Your task to perform on an android device: add a label to a message in the gmail app Image 0: 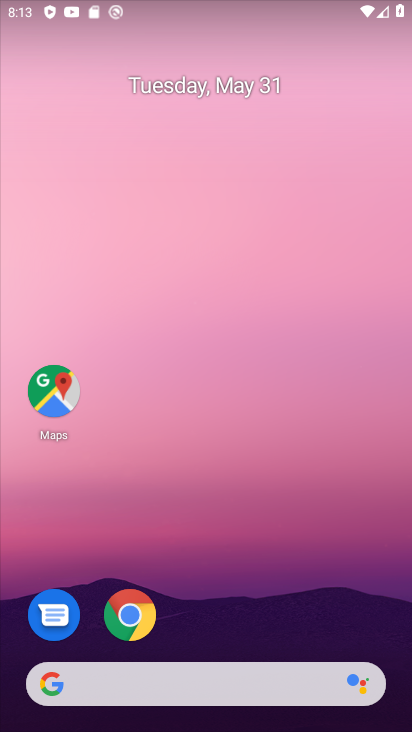
Step 0: drag from (381, 642) to (357, 123)
Your task to perform on an android device: add a label to a message in the gmail app Image 1: 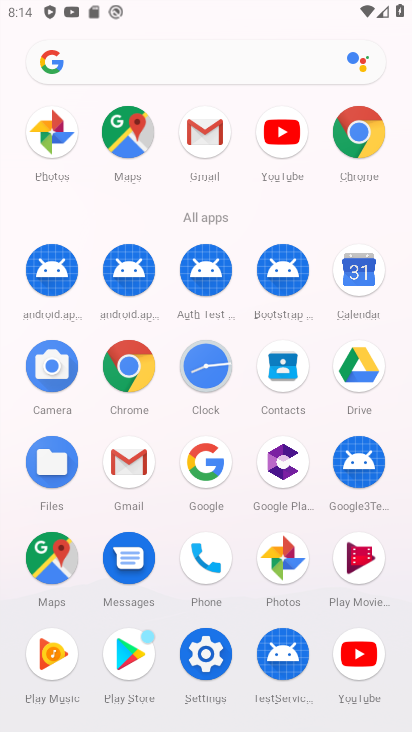
Step 1: click (122, 462)
Your task to perform on an android device: add a label to a message in the gmail app Image 2: 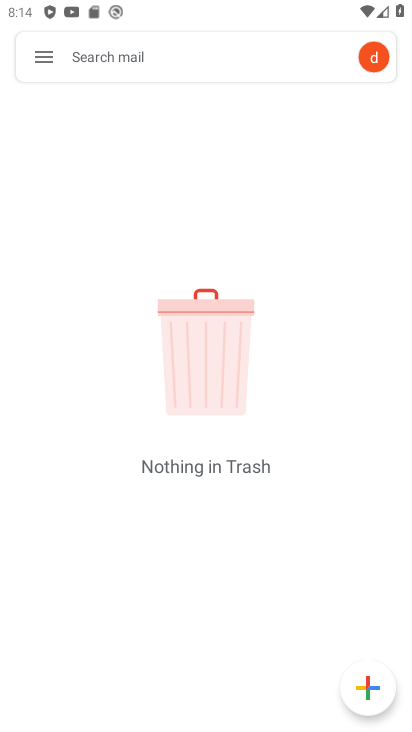
Step 2: click (48, 68)
Your task to perform on an android device: add a label to a message in the gmail app Image 3: 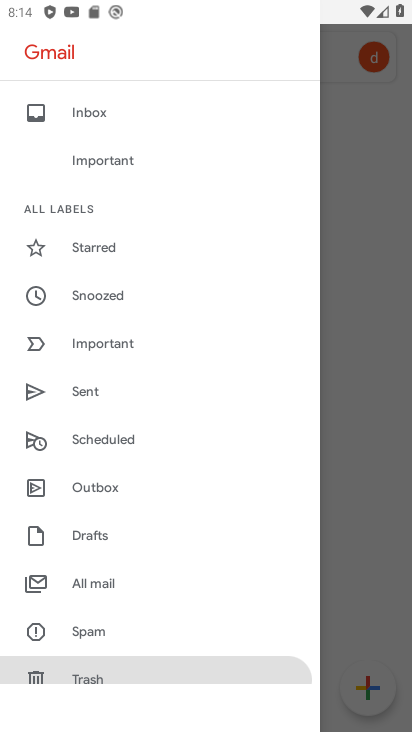
Step 3: click (91, 590)
Your task to perform on an android device: add a label to a message in the gmail app Image 4: 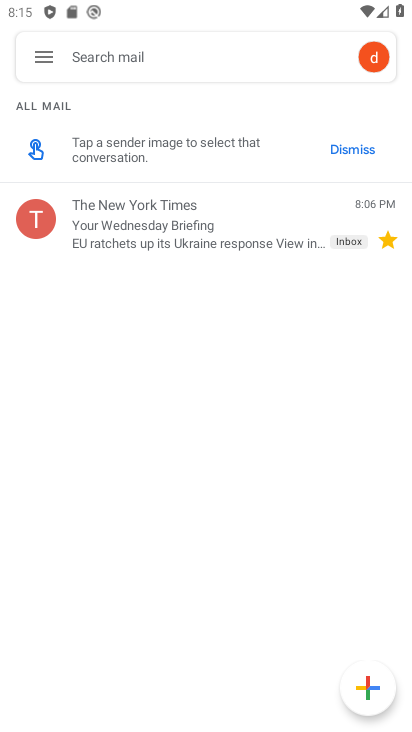
Step 4: click (259, 219)
Your task to perform on an android device: add a label to a message in the gmail app Image 5: 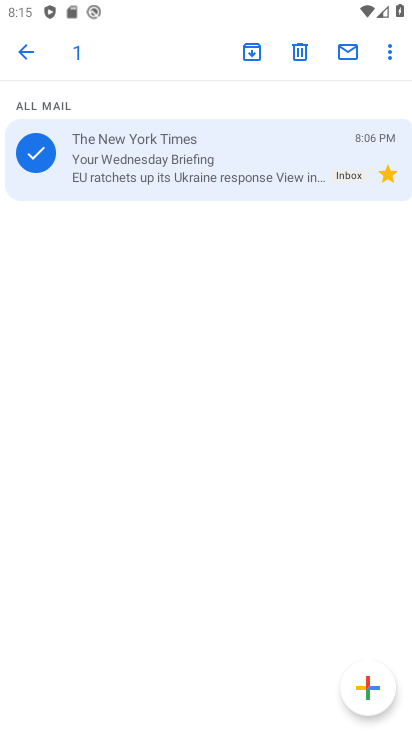
Step 5: click (394, 63)
Your task to perform on an android device: add a label to a message in the gmail app Image 6: 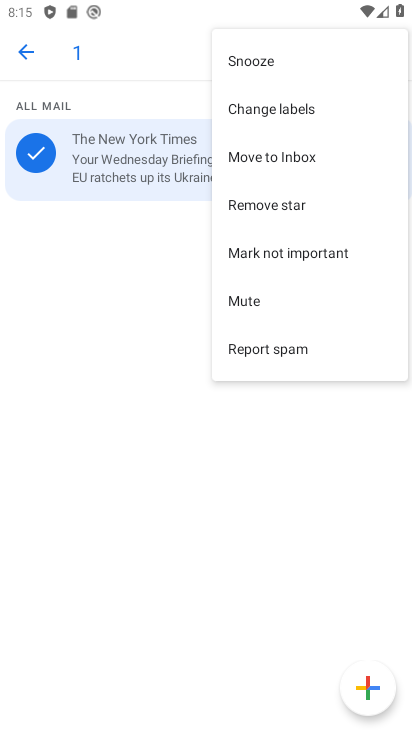
Step 6: click (254, 107)
Your task to perform on an android device: add a label to a message in the gmail app Image 7: 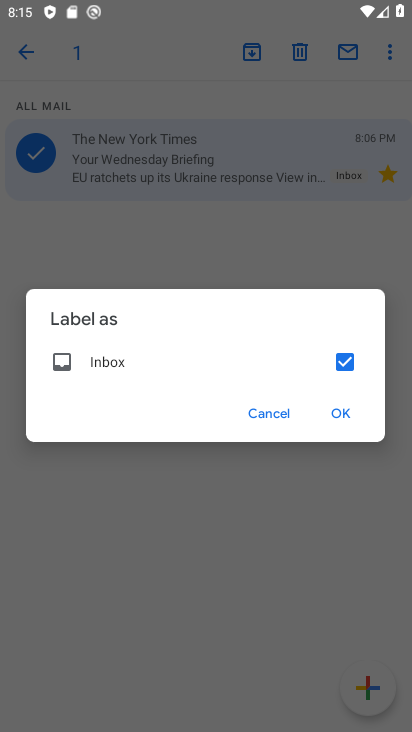
Step 7: click (350, 414)
Your task to perform on an android device: add a label to a message in the gmail app Image 8: 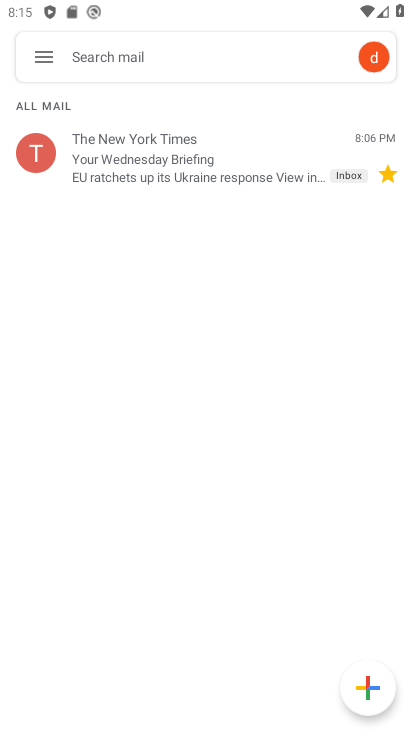
Step 8: task complete